Your task to perform on an android device: Open the calendar app, open the side menu, and click the "Day" option Image 0: 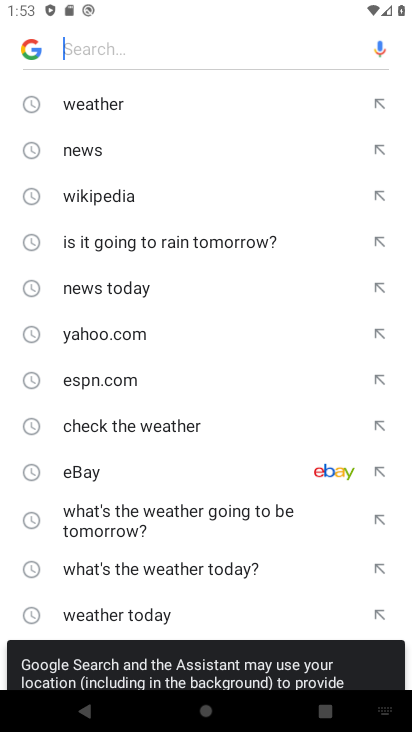
Step 0: press back button
Your task to perform on an android device: Open the calendar app, open the side menu, and click the "Day" option Image 1: 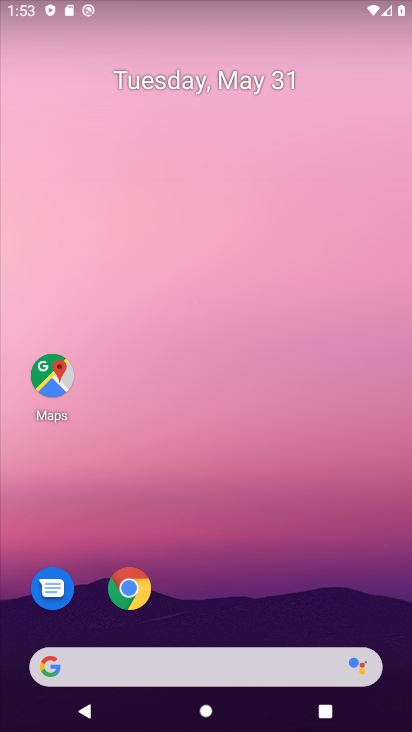
Step 1: drag from (167, 724) to (122, 27)
Your task to perform on an android device: Open the calendar app, open the side menu, and click the "Day" option Image 2: 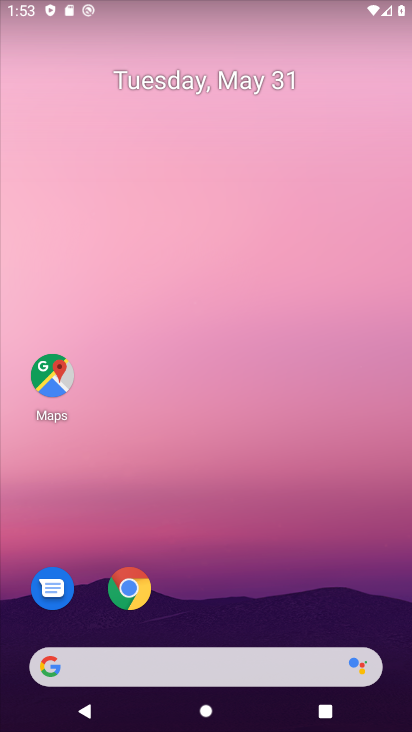
Step 2: drag from (144, 725) to (136, 24)
Your task to perform on an android device: Open the calendar app, open the side menu, and click the "Day" option Image 3: 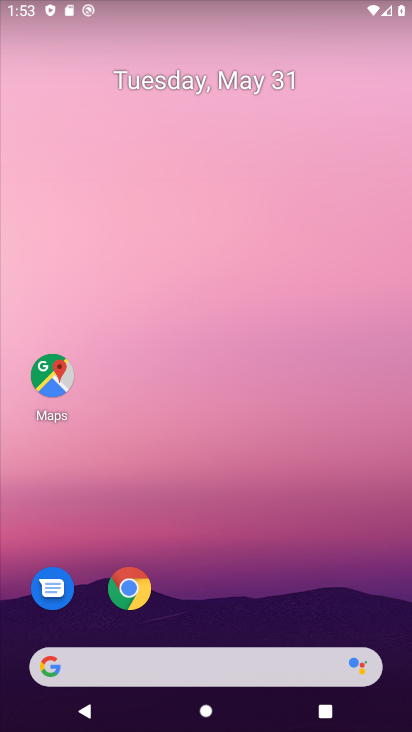
Step 3: drag from (147, 730) to (129, 12)
Your task to perform on an android device: Open the calendar app, open the side menu, and click the "Day" option Image 4: 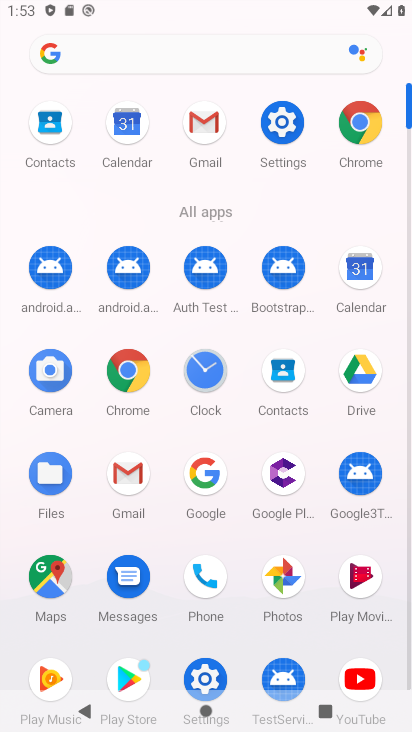
Step 4: click (360, 293)
Your task to perform on an android device: Open the calendar app, open the side menu, and click the "Day" option Image 5: 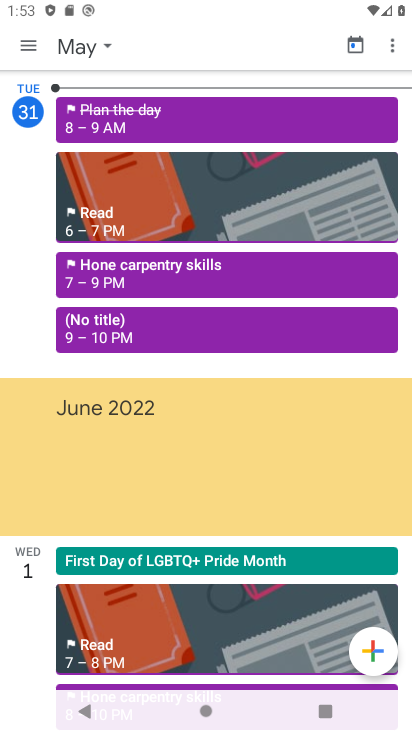
Step 5: click (29, 41)
Your task to perform on an android device: Open the calendar app, open the side menu, and click the "Day" option Image 6: 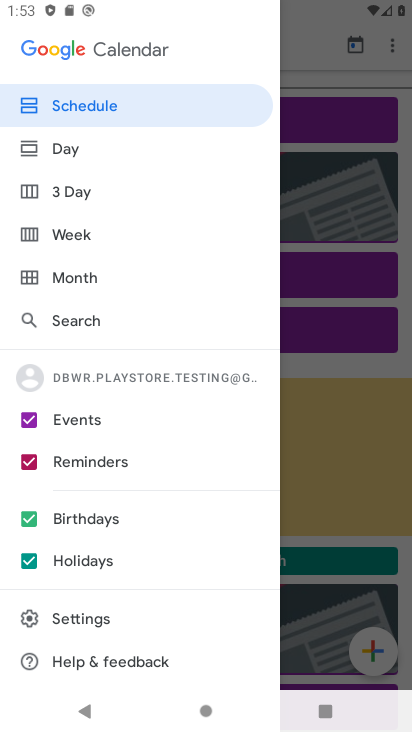
Step 6: click (78, 160)
Your task to perform on an android device: Open the calendar app, open the side menu, and click the "Day" option Image 7: 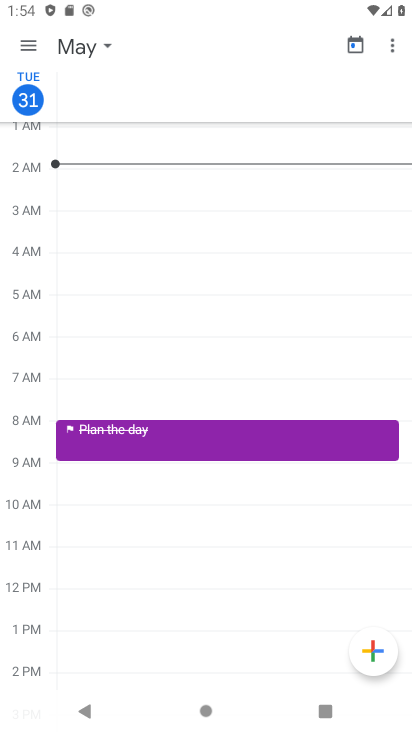
Step 7: task complete